Your task to perform on an android device: turn off airplane mode Image 0: 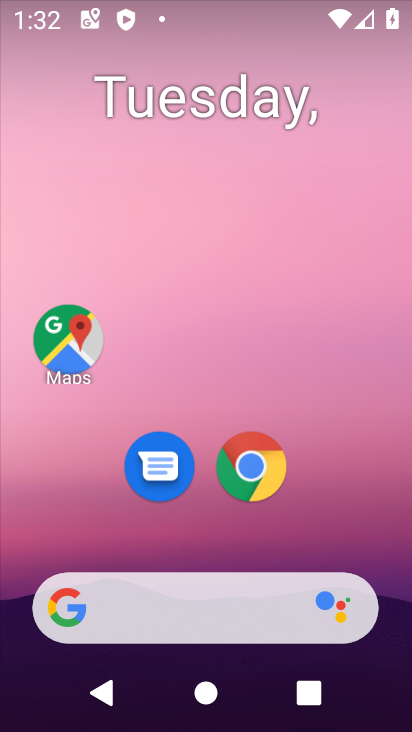
Step 0: drag from (311, 7) to (299, 701)
Your task to perform on an android device: turn off airplane mode Image 1: 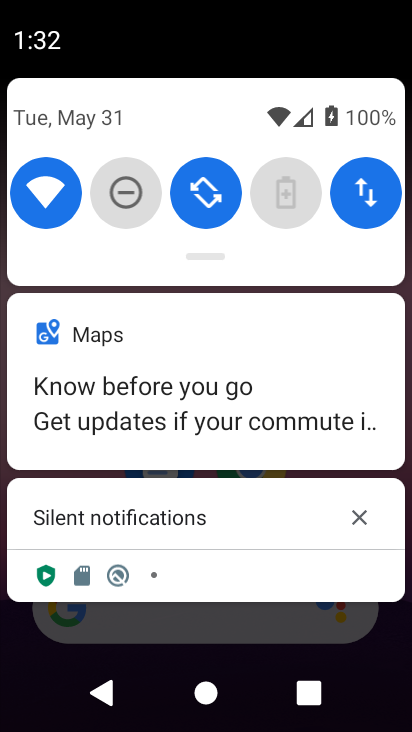
Step 1: task complete